Your task to perform on an android device: toggle wifi Image 0: 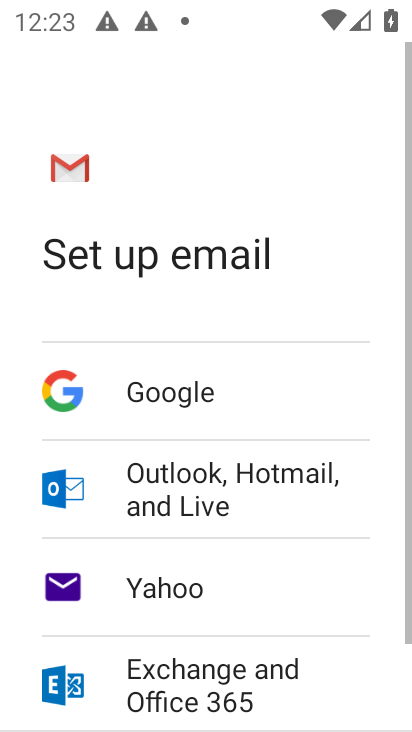
Step 0: press home button
Your task to perform on an android device: toggle wifi Image 1: 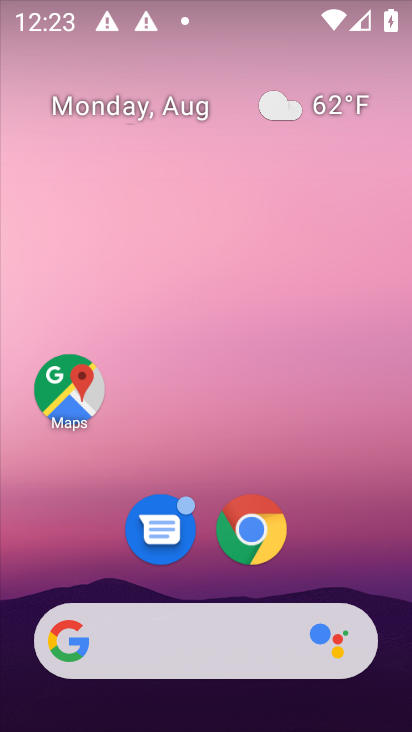
Step 1: drag from (207, 597) to (187, 264)
Your task to perform on an android device: toggle wifi Image 2: 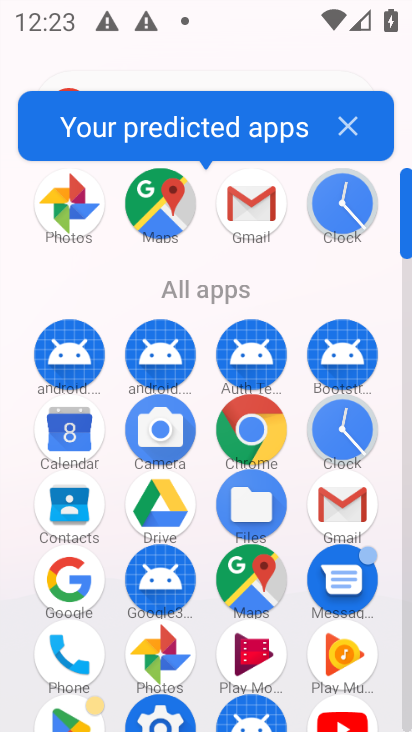
Step 2: click (165, 716)
Your task to perform on an android device: toggle wifi Image 3: 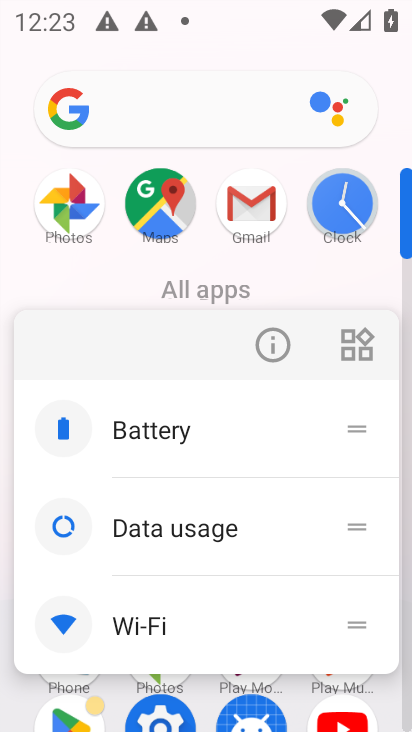
Step 3: click (164, 721)
Your task to perform on an android device: toggle wifi Image 4: 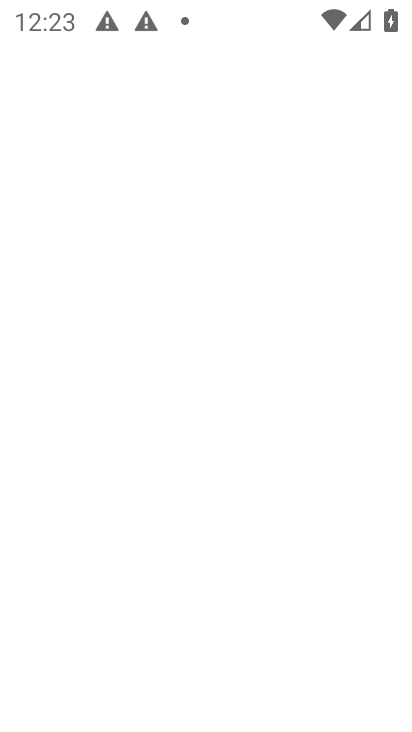
Step 4: click (161, 727)
Your task to perform on an android device: toggle wifi Image 5: 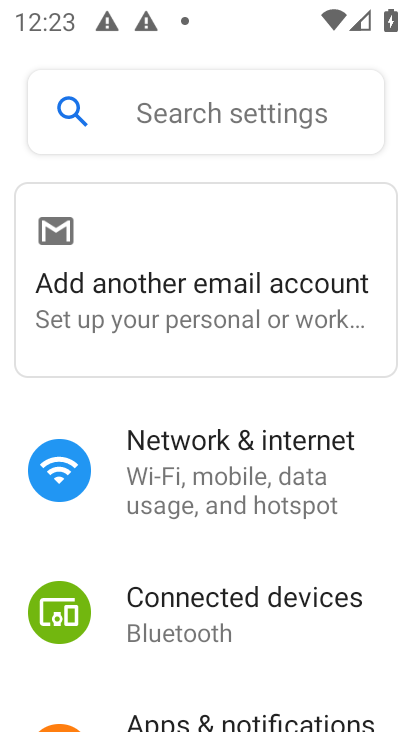
Step 5: click (167, 495)
Your task to perform on an android device: toggle wifi Image 6: 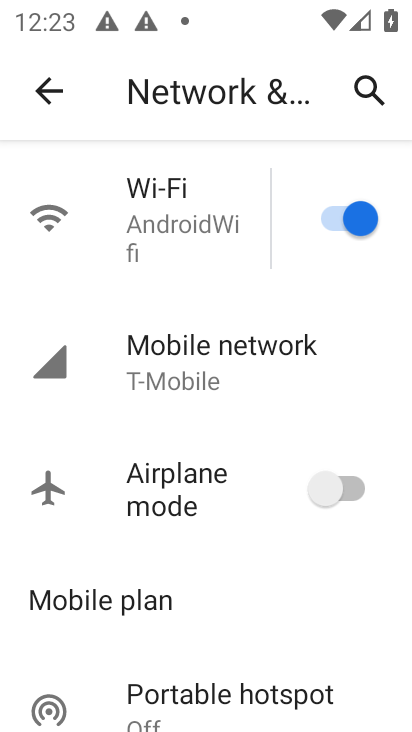
Step 6: click (323, 213)
Your task to perform on an android device: toggle wifi Image 7: 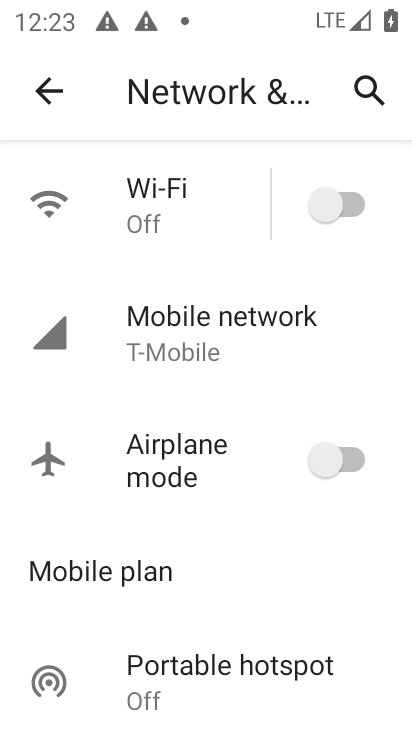
Step 7: task complete